Your task to perform on an android device: Open Chrome and go to settings Image 0: 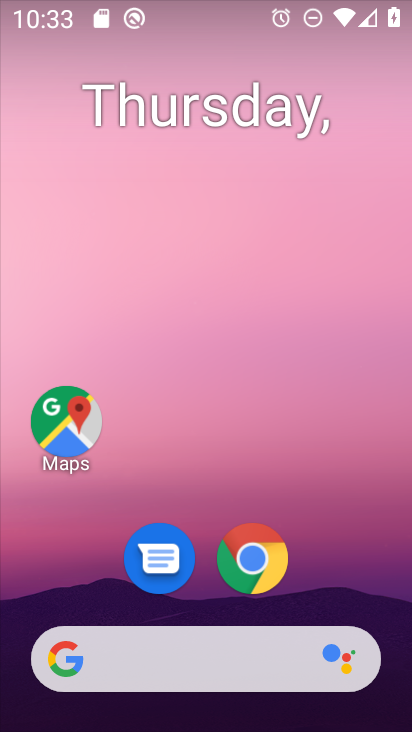
Step 0: click (247, 560)
Your task to perform on an android device: Open Chrome and go to settings Image 1: 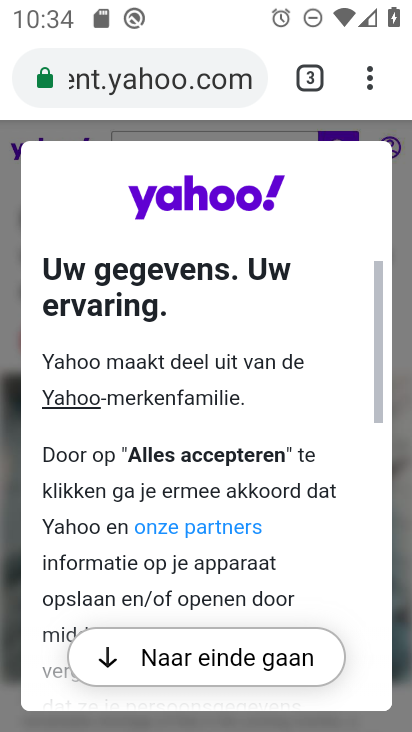
Step 1: click (370, 79)
Your task to perform on an android device: Open Chrome and go to settings Image 2: 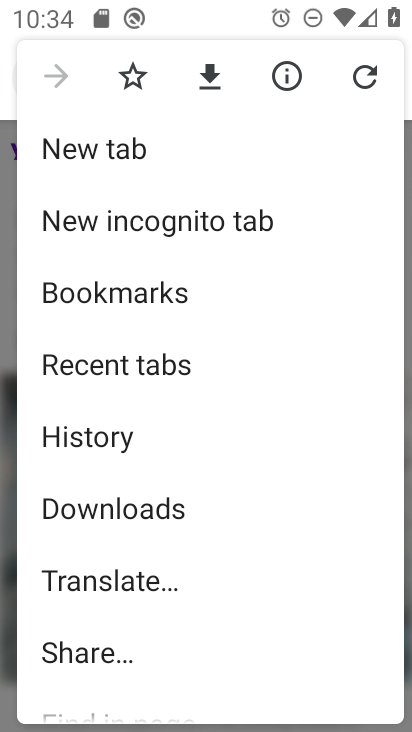
Step 2: drag from (152, 635) to (206, 230)
Your task to perform on an android device: Open Chrome and go to settings Image 3: 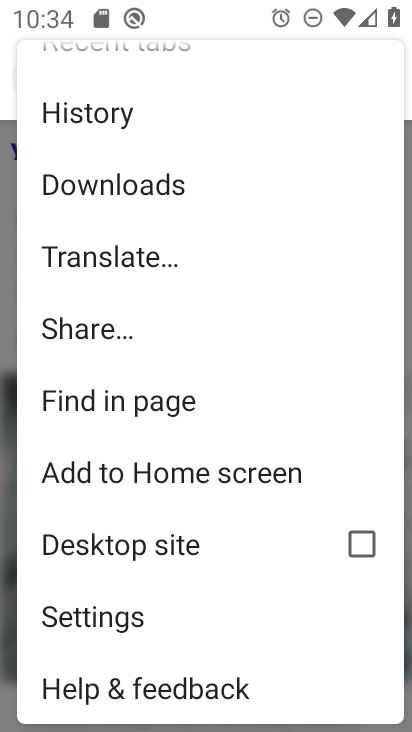
Step 3: click (100, 624)
Your task to perform on an android device: Open Chrome and go to settings Image 4: 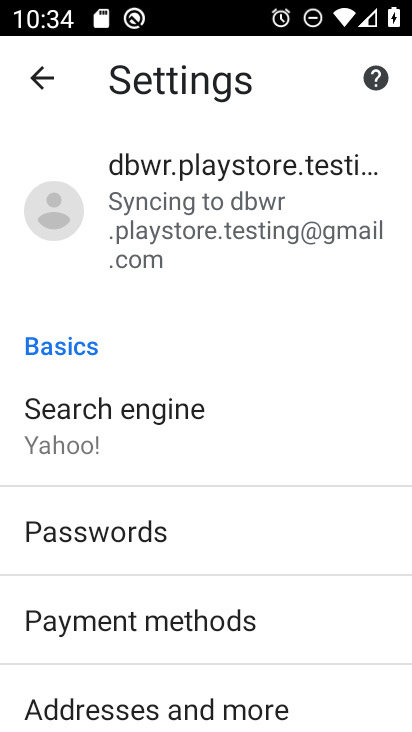
Step 4: task complete